Your task to perform on an android device: Open the web browser Image 0: 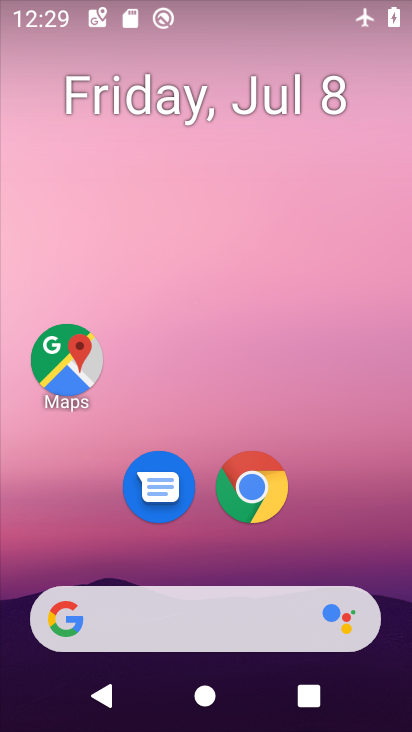
Step 0: drag from (367, 534) to (370, 146)
Your task to perform on an android device: Open the web browser Image 1: 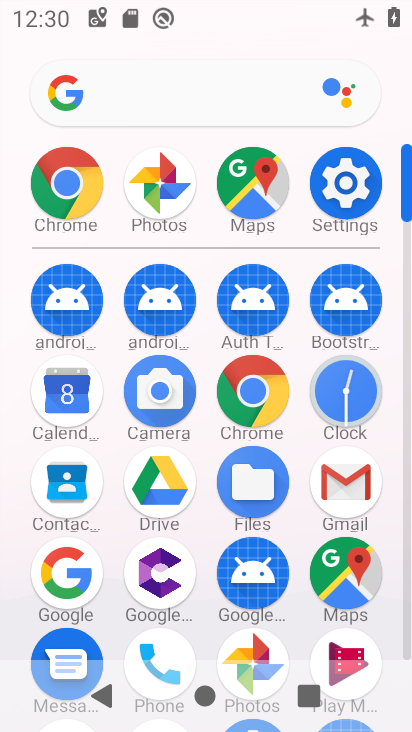
Step 1: click (254, 397)
Your task to perform on an android device: Open the web browser Image 2: 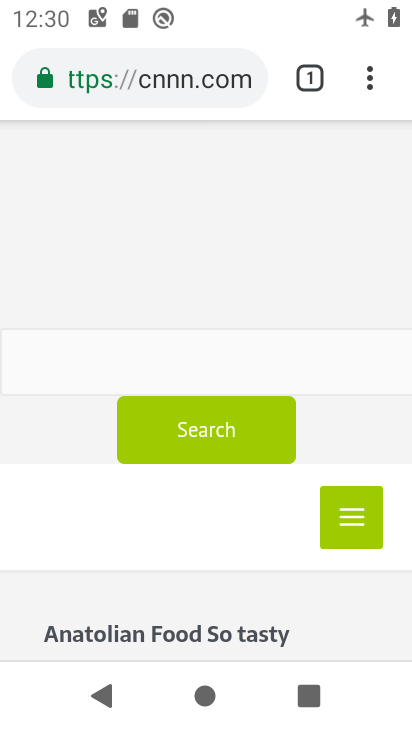
Step 2: task complete